Your task to perform on an android device: toggle javascript in the chrome app Image 0: 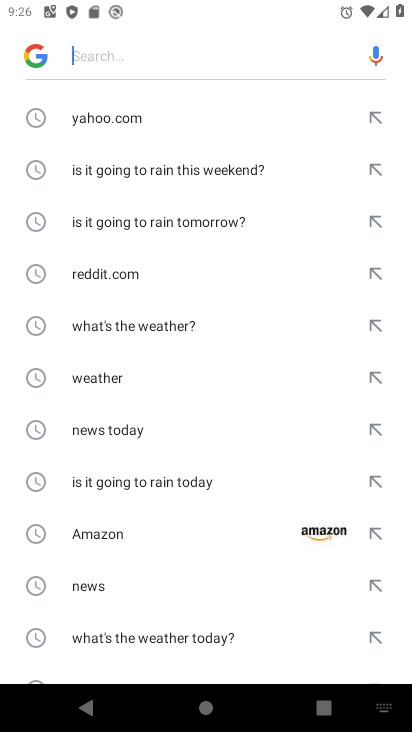
Step 0: press home button
Your task to perform on an android device: toggle javascript in the chrome app Image 1: 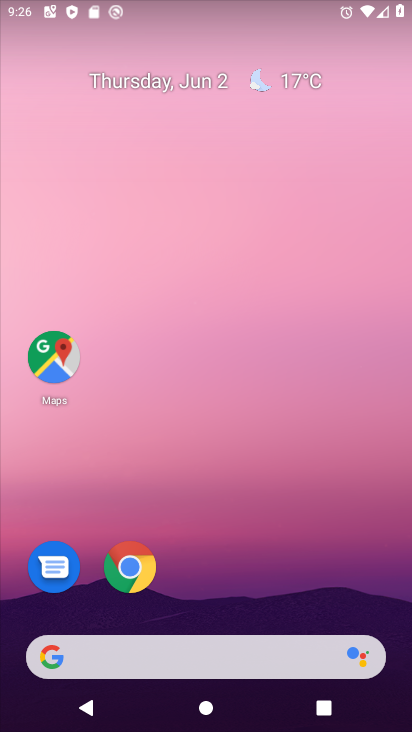
Step 1: click (136, 566)
Your task to perform on an android device: toggle javascript in the chrome app Image 2: 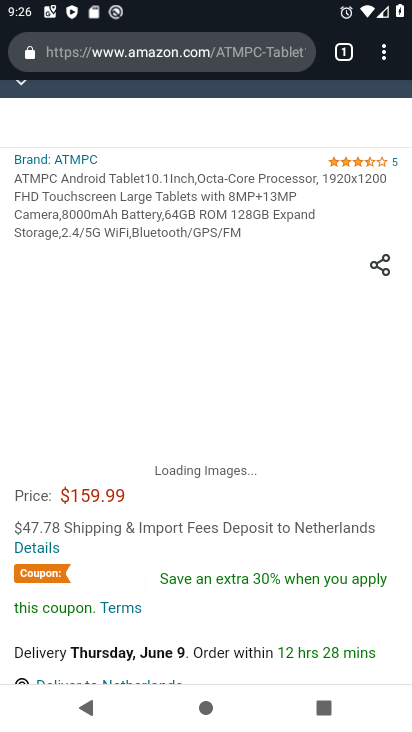
Step 2: click (385, 65)
Your task to perform on an android device: toggle javascript in the chrome app Image 3: 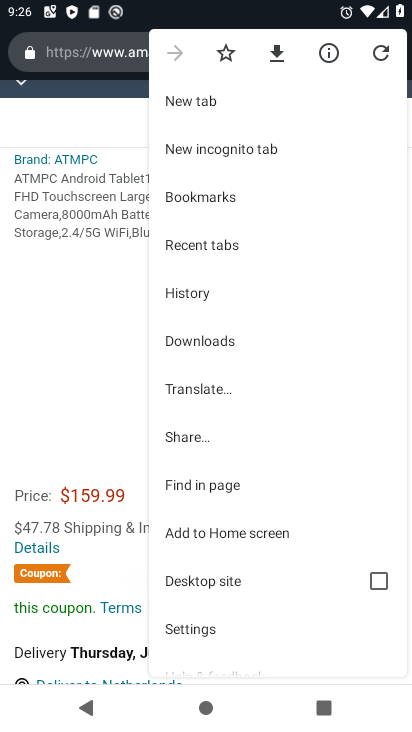
Step 3: click (198, 629)
Your task to perform on an android device: toggle javascript in the chrome app Image 4: 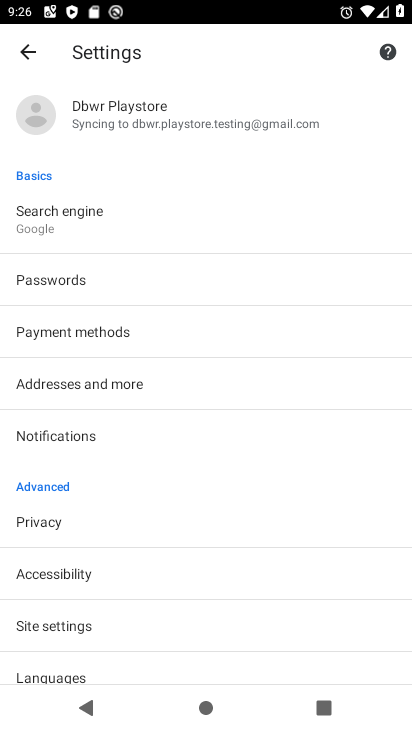
Step 4: click (73, 624)
Your task to perform on an android device: toggle javascript in the chrome app Image 5: 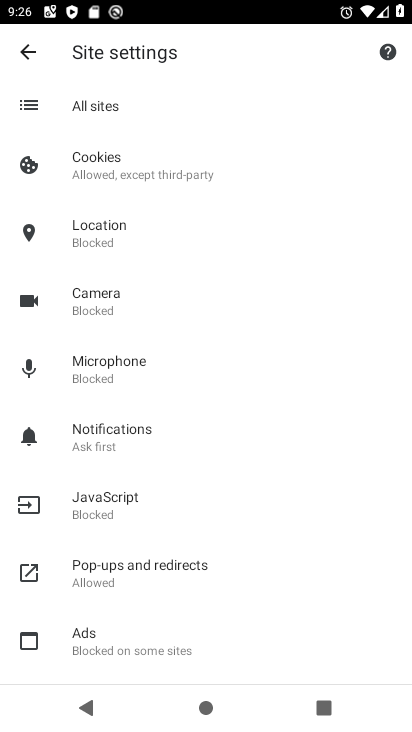
Step 5: click (126, 510)
Your task to perform on an android device: toggle javascript in the chrome app Image 6: 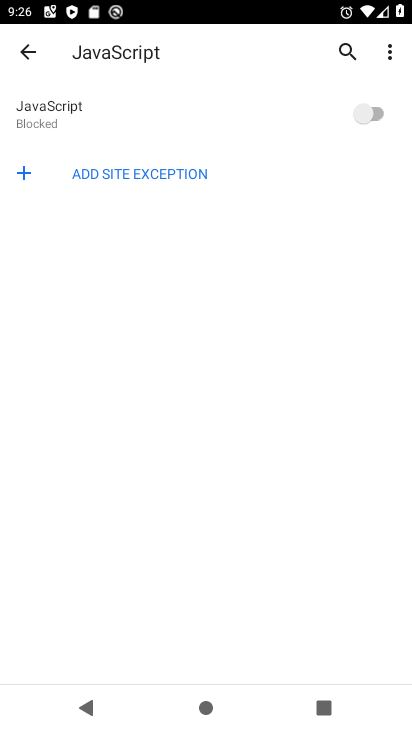
Step 6: click (383, 114)
Your task to perform on an android device: toggle javascript in the chrome app Image 7: 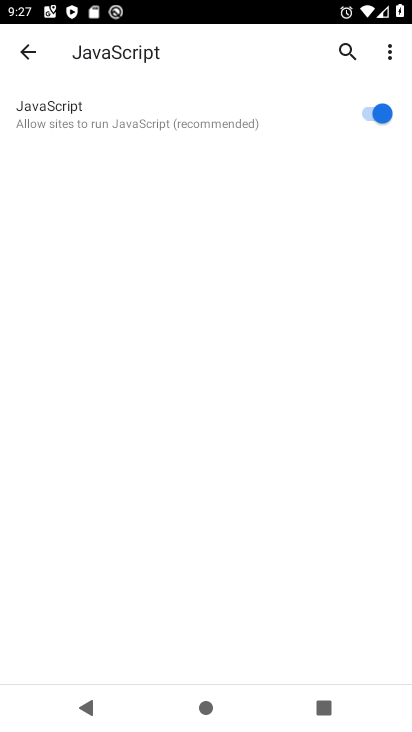
Step 7: task complete